Your task to perform on an android device: turn on priority inbox in the gmail app Image 0: 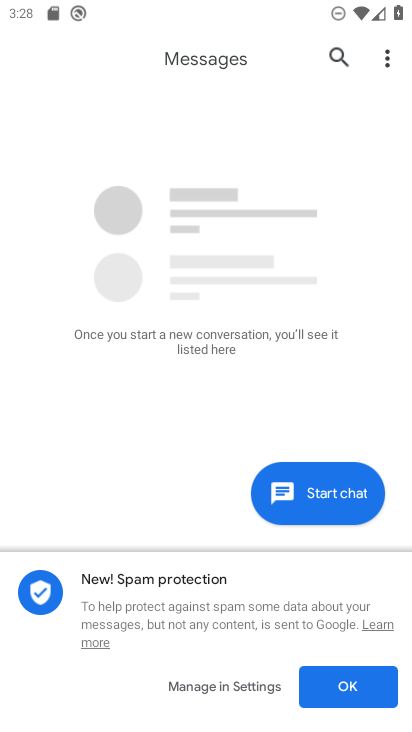
Step 0: press back button
Your task to perform on an android device: turn on priority inbox in the gmail app Image 1: 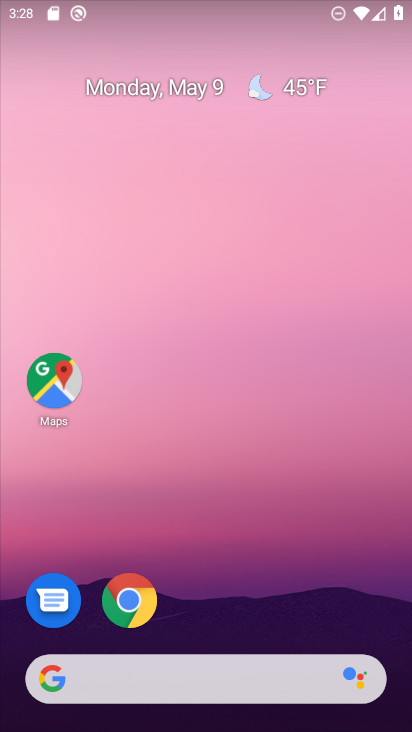
Step 1: drag from (255, 515) to (175, 0)
Your task to perform on an android device: turn on priority inbox in the gmail app Image 2: 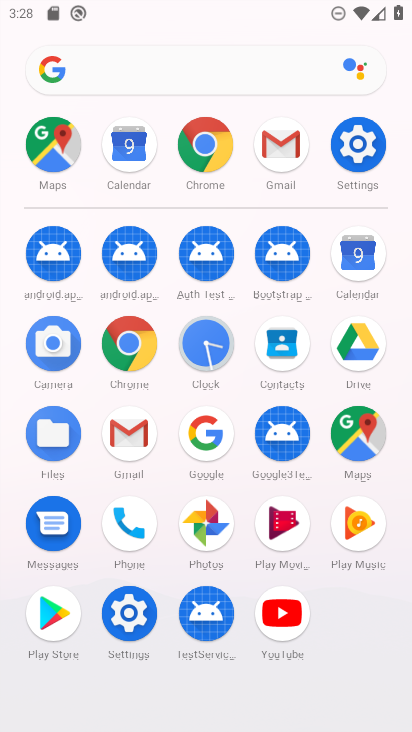
Step 2: drag from (8, 580) to (20, 208)
Your task to perform on an android device: turn on priority inbox in the gmail app Image 3: 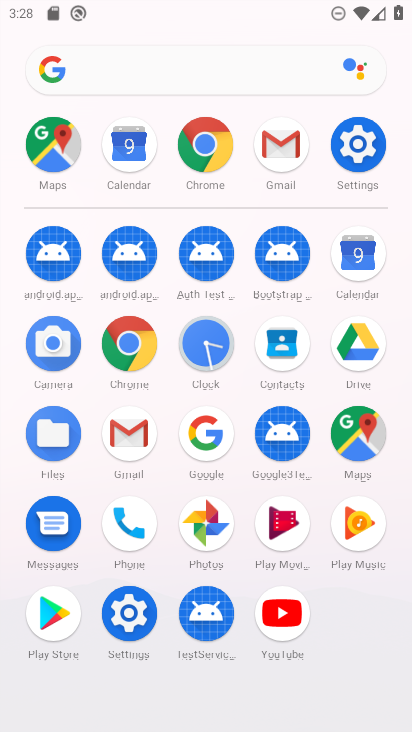
Step 3: click (126, 426)
Your task to perform on an android device: turn on priority inbox in the gmail app Image 4: 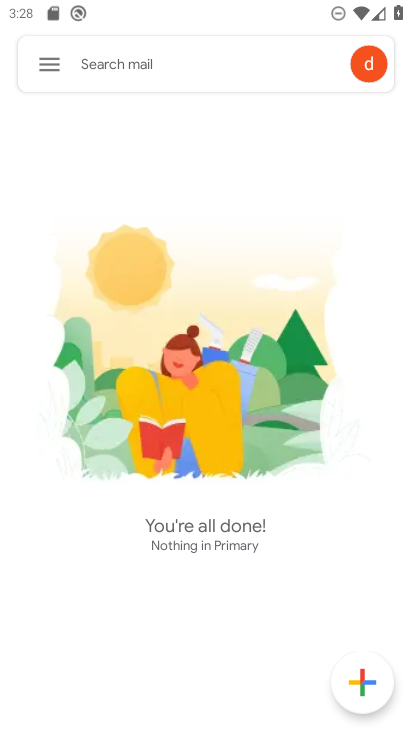
Step 4: click (51, 64)
Your task to perform on an android device: turn on priority inbox in the gmail app Image 5: 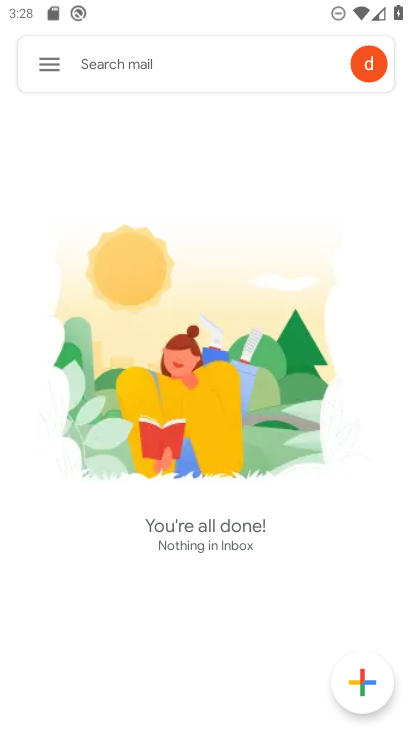
Step 5: click (47, 65)
Your task to perform on an android device: turn on priority inbox in the gmail app Image 6: 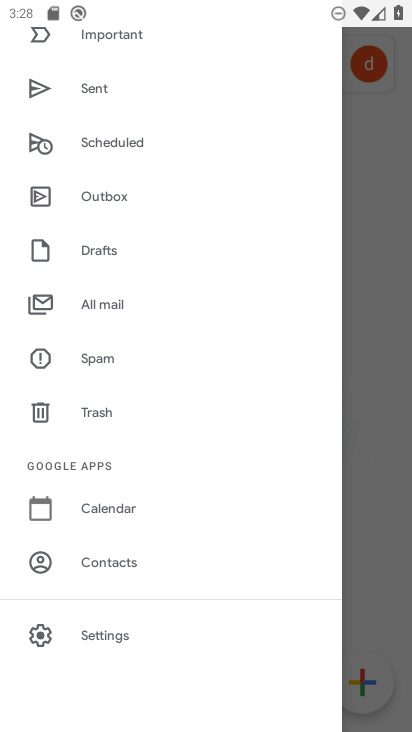
Step 6: click (109, 625)
Your task to perform on an android device: turn on priority inbox in the gmail app Image 7: 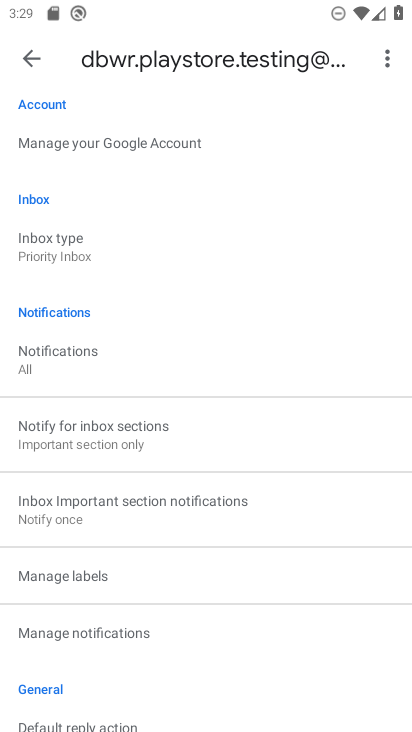
Step 7: task complete